Your task to perform on an android device: change the clock style Image 0: 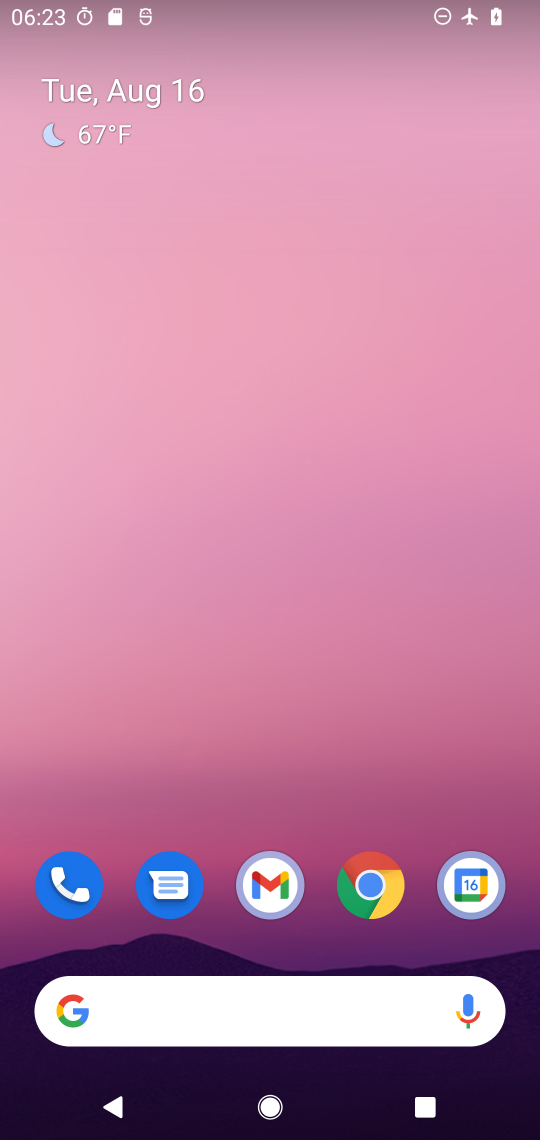
Step 0: drag from (137, 979) to (173, 333)
Your task to perform on an android device: change the clock style Image 1: 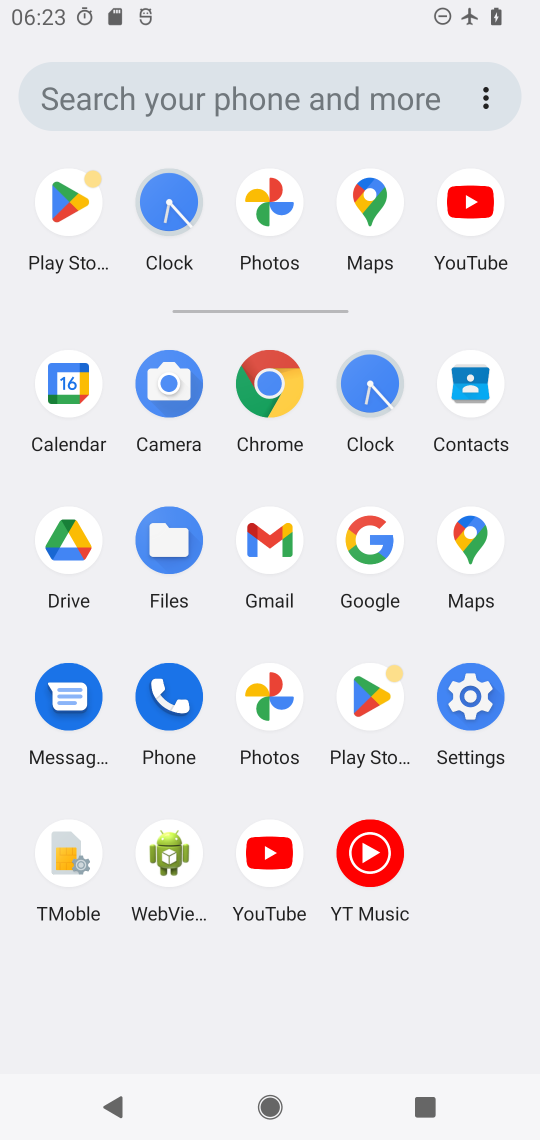
Step 1: click (374, 365)
Your task to perform on an android device: change the clock style Image 2: 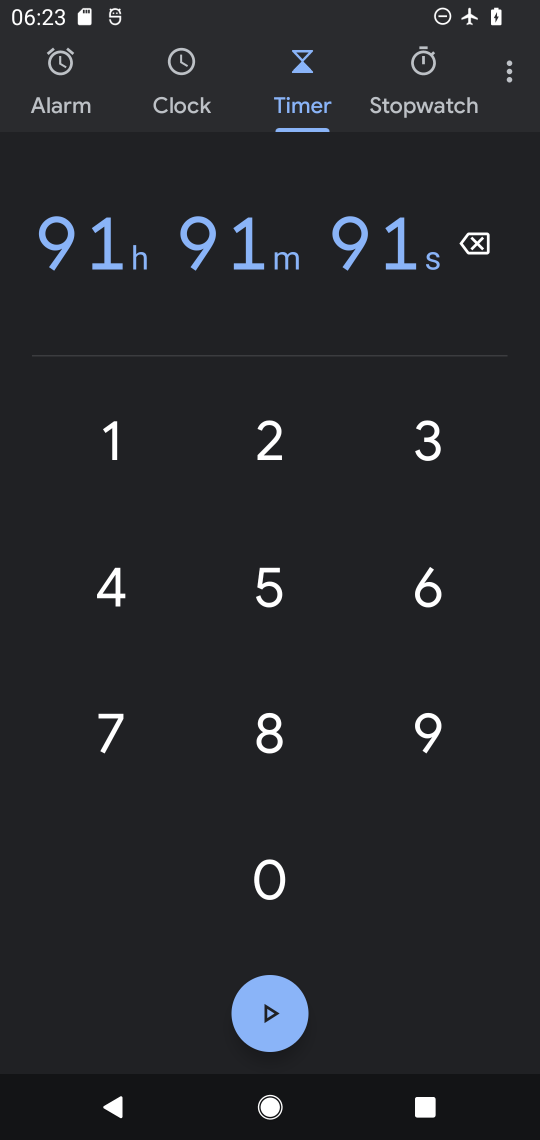
Step 2: click (510, 75)
Your task to perform on an android device: change the clock style Image 3: 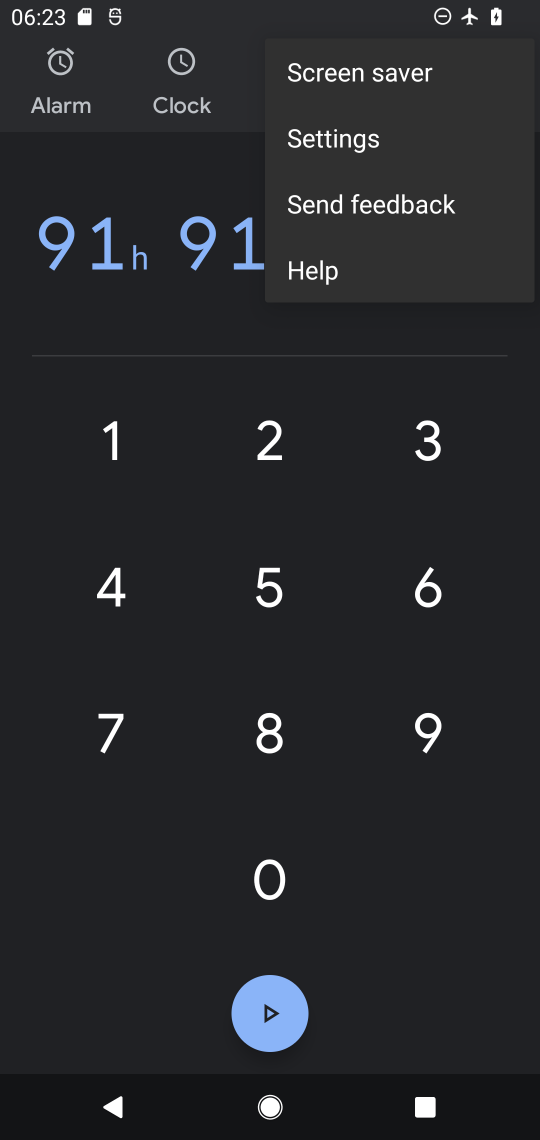
Step 3: click (360, 145)
Your task to perform on an android device: change the clock style Image 4: 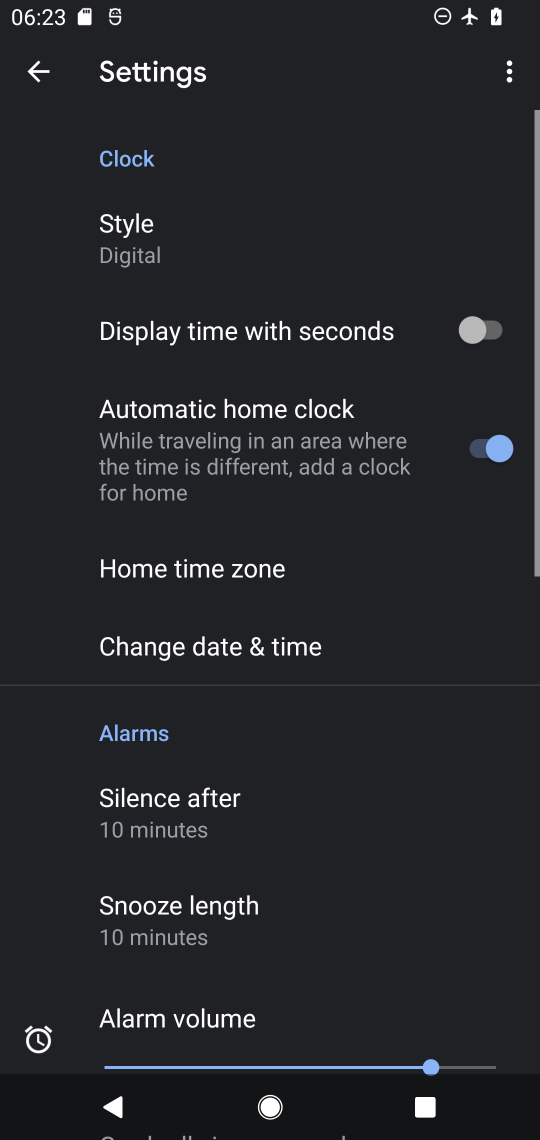
Step 4: click (150, 255)
Your task to perform on an android device: change the clock style Image 5: 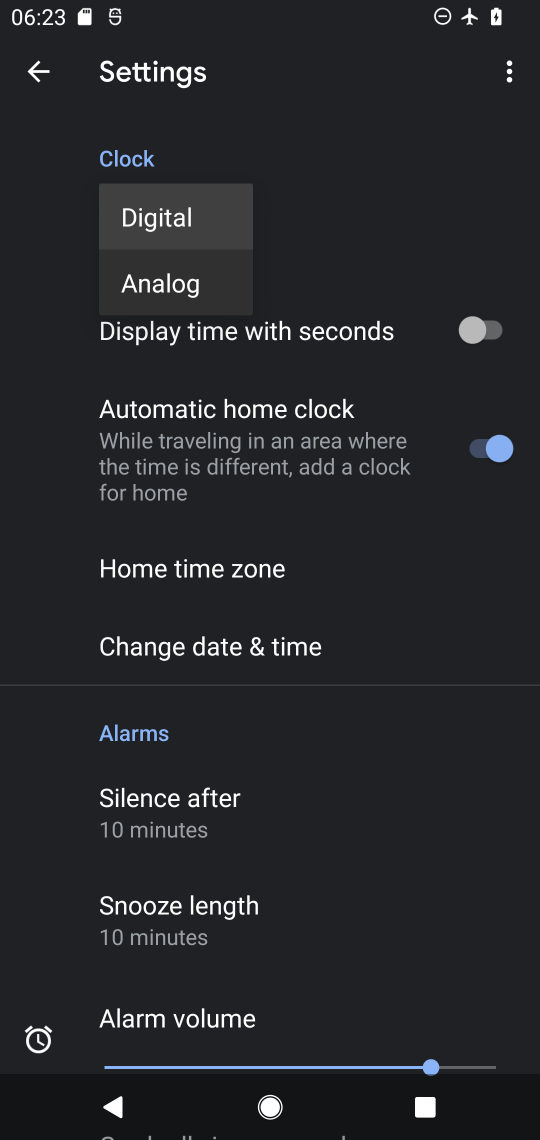
Step 5: click (168, 303)
Your task to perform on an android device: change the clock style Image 6: 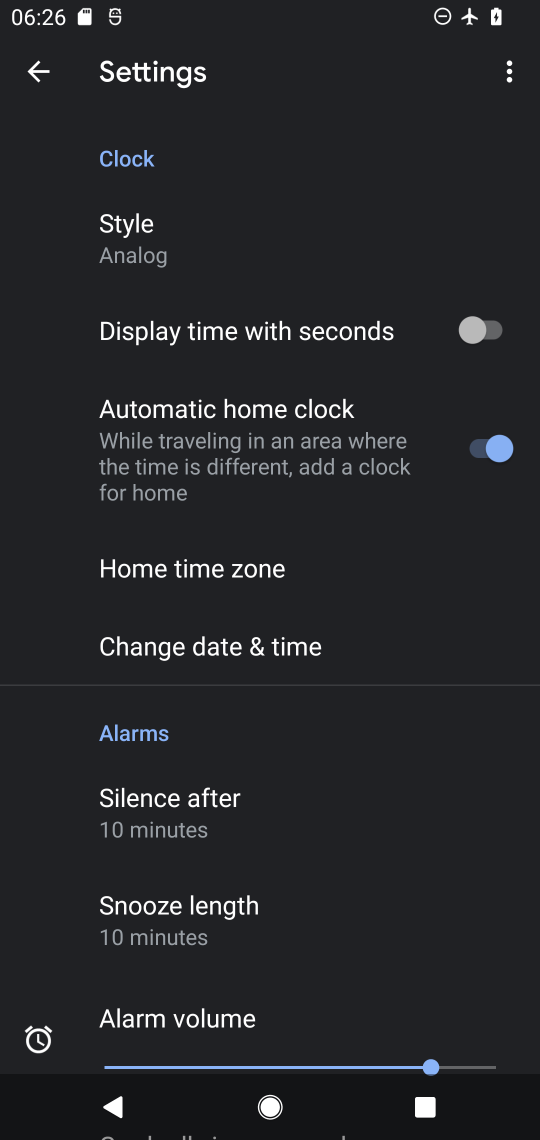
Step 6: task complete